Your task to perform on an android device: Set the phone to "Do not disturb". Image 0: 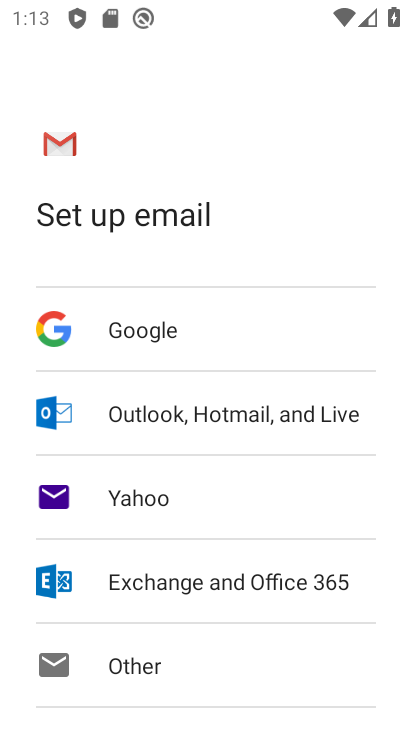
Step 0: press home button
Your task to perform on an android device: Set the phone to "Do not disturb". Image 1: 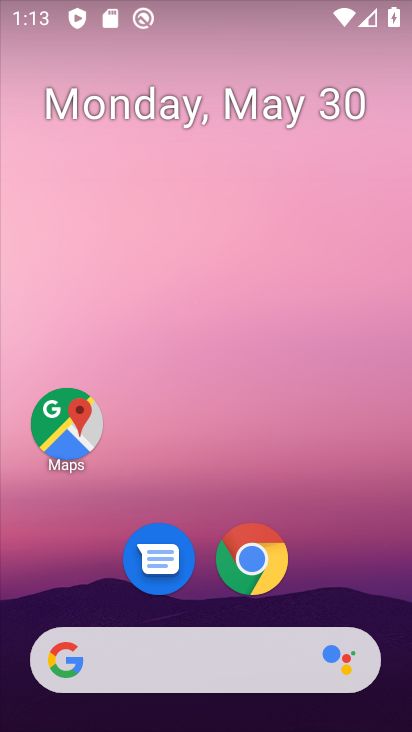
Step 1: drag from (310, 611) to (339, 12)
Your task to perform on an android device: Set the phone to "Do not disturb". Image 2: 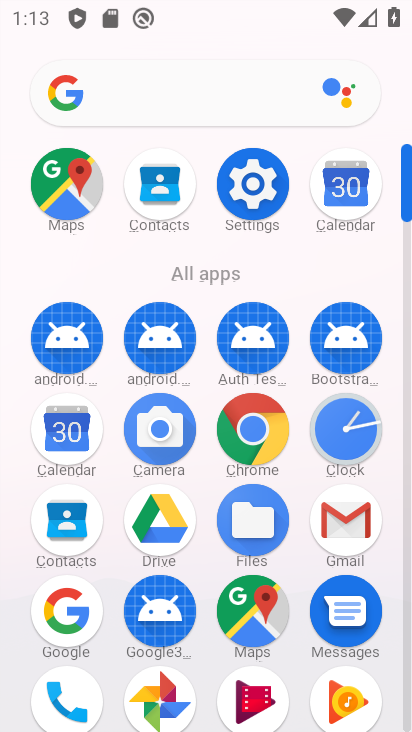
Step 2: click (260, 184)
Your task to perform on an android device: Set the phone to "Do not disturb". Image 3: 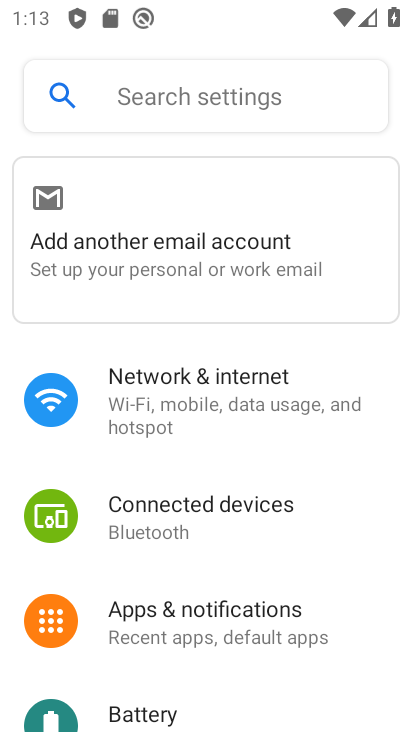
Step 3: drag from (188, 596) to (205, 158)
Your task to perform on an android device: Set the phone to "Do not disturb". Image 4: 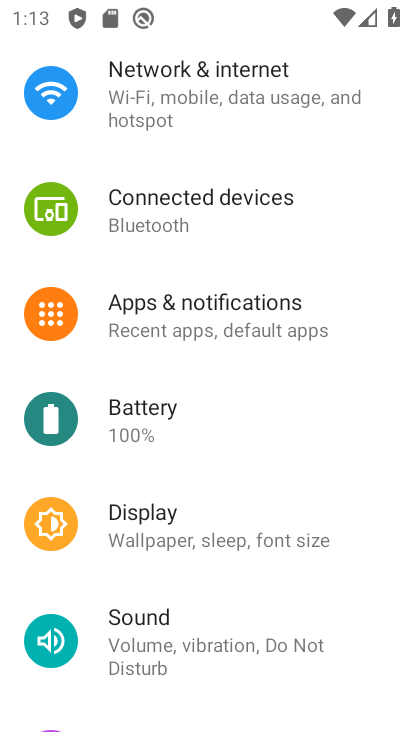
Step 4: click (205, 637)
Your task to perform on an android device: Set the phone to "Do not disturb". Image 5: 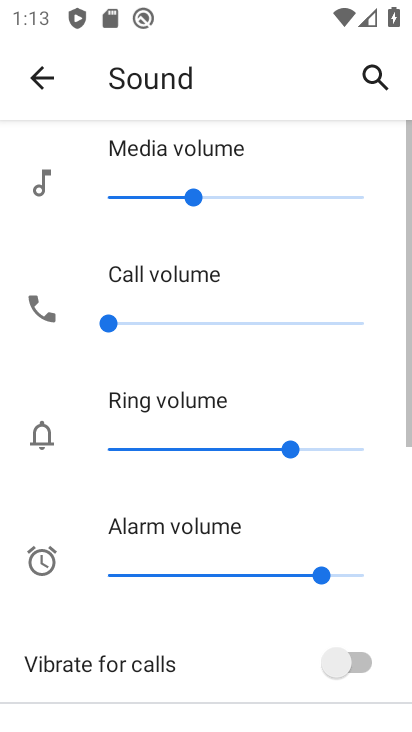
Step 5: drag from (255, 679) to (359, 116)
Your task to perform on an android device: Set the phone to "Do not disturb". Image 6: 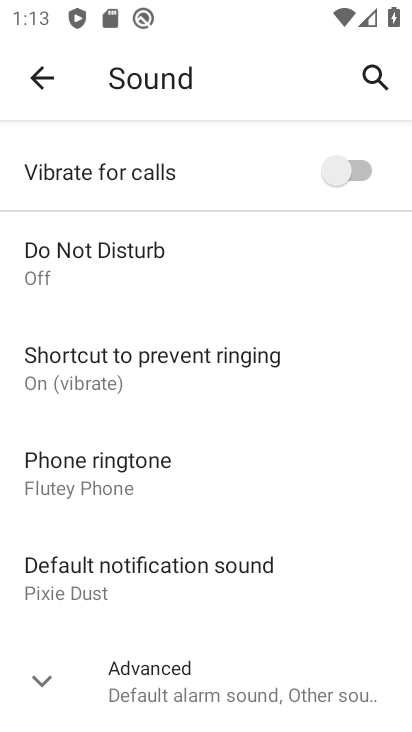
Step 6: click (71, 260)
Your task to perform on an android device: Set the phone to "Do not disturb". Image 7: 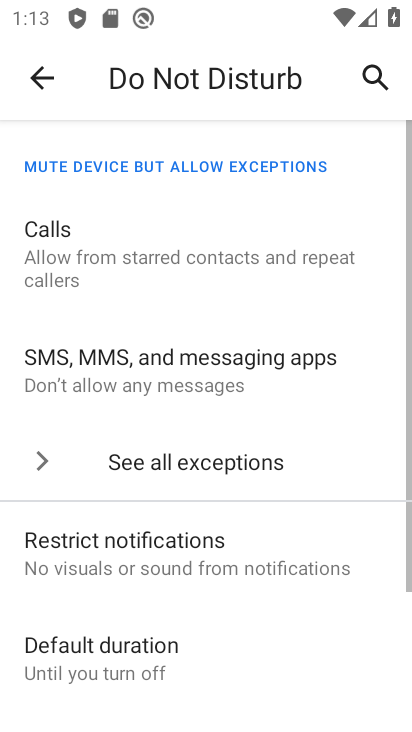
Step 7: drag from (130, 646) to (157, 166)
Your task to perform on an android device: Set the phone to "Do not disturb". Image 8: 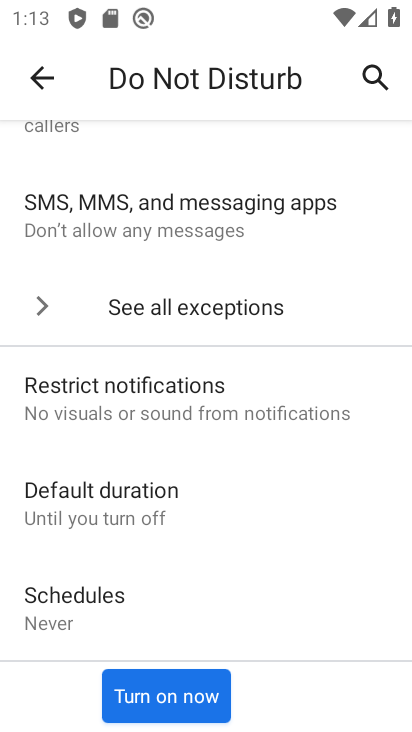
Step 8: click (132, 709)
Your task to perform on an android device: Set the phone to "Do not disturb". Image 9: 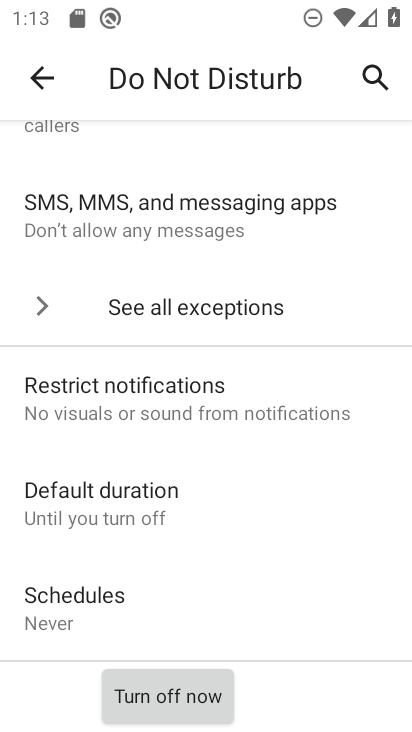
Step 9: task complete